Your task to perform on an android device: change the clock display to analog Image 0: 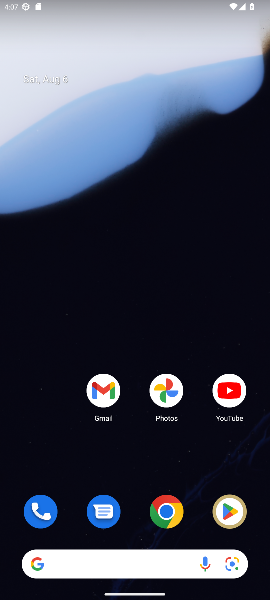
Step 0: drag from (120, 460) to (103, 43)
Your task to perform on an android device: change the clock display to analog Image 1: 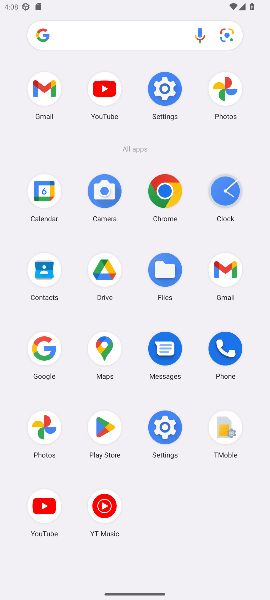
Step 1: click (168, 444)
Your task to perform on an android device: change the clock display to analog Image 2: 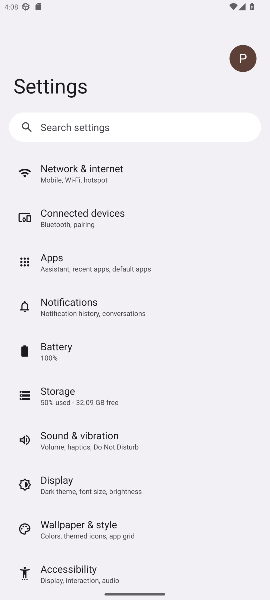
Step 2: press home button
Your task to perform on an android device: change the clock display to analog Image 3: 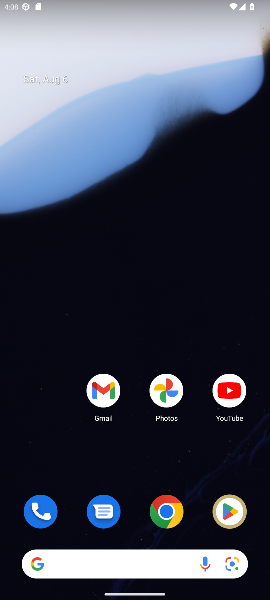
Step 3: drag from (128, 477) to (205, 0)
Your task to perform on an android device: change the clock display to analog Image 4: 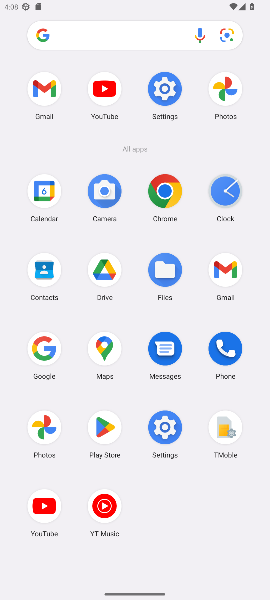
Step 4: click (159, 90)
Your task to perform on an android device: change the clock display to analog Image 5: 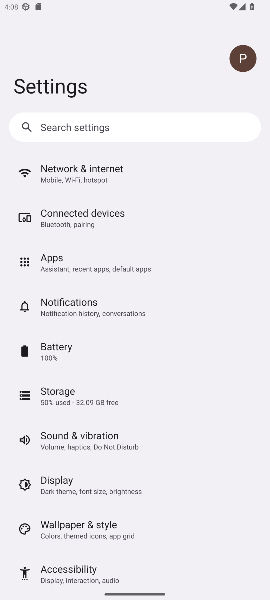
Step 5: click (68, 490)
Your task to perform on an android device: change the clock display to analog Image 6: 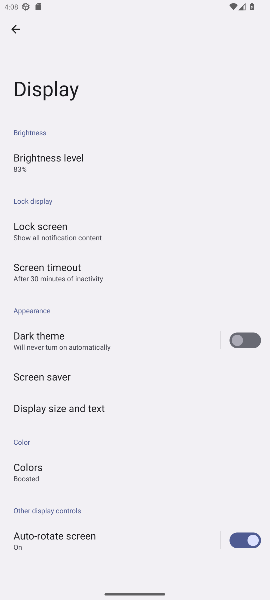
Step 6: click (79, 379)
Your task to perform on an android device: change the clock display to analog Image 7: 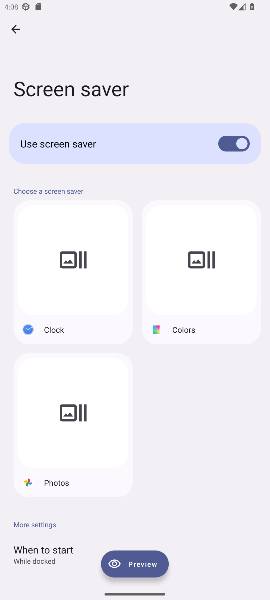
Step 7: click (60, 329)
Your task to perform on an android device: change the clock display to analog Image 8: 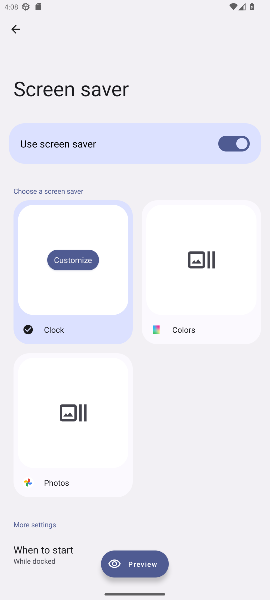
Step 8: click (84, 257)
Your task to perform on an android device: change the clock display to analog Image 9: 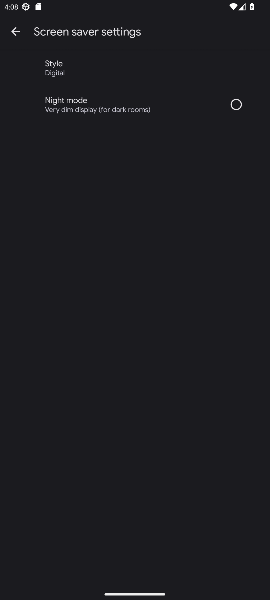
Step 9: click (78, 60)
Your task to perform on an android device: change the clock display to analog Image 10: 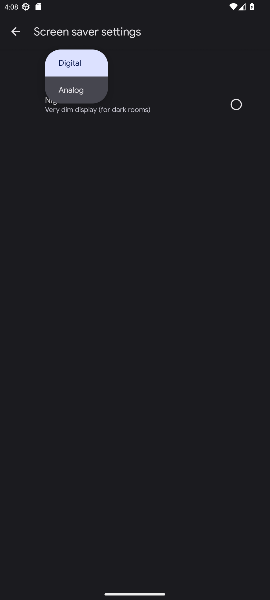
Step 10: click (85, 86)
Your task to perform on an android device: change the clock display to analog Image 11: 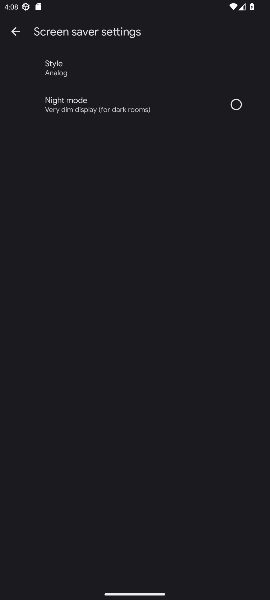
Step 11: task complete